Your task to perform on an android device: Go to sound settings Image 0: 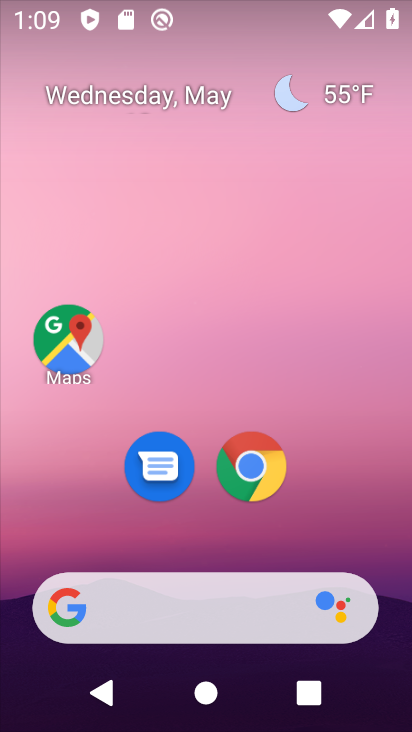
Step 0: drag from (193, 557) to (230, 55)
Your task to perform on an android device: Go to sound settings Image 1: 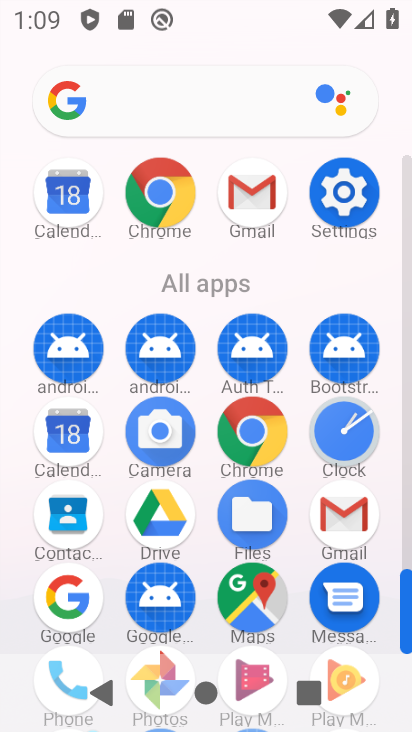
Step 1: click (350, 195)
Your task to perform on an android device: Go to sound settings Image 2: 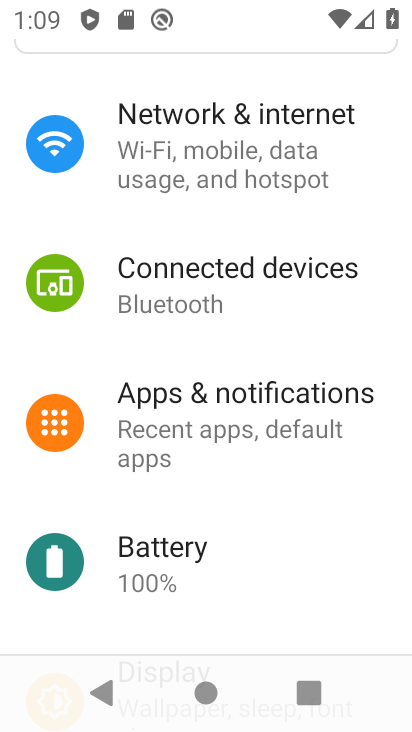
Step 2: drag from (247, 223) to (219, 523)
Your task to perform on an android device: Go to sound settings Image 3: 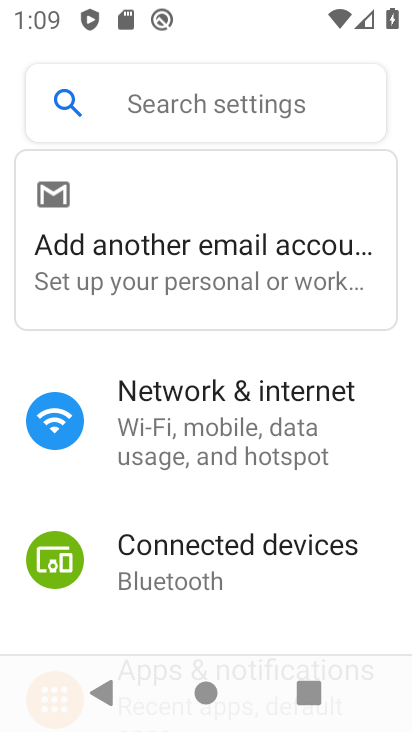
Step 3: drag from (215, 543) to (210, 23)
Your task to perform on an android device: Go to sound settings Image 4: 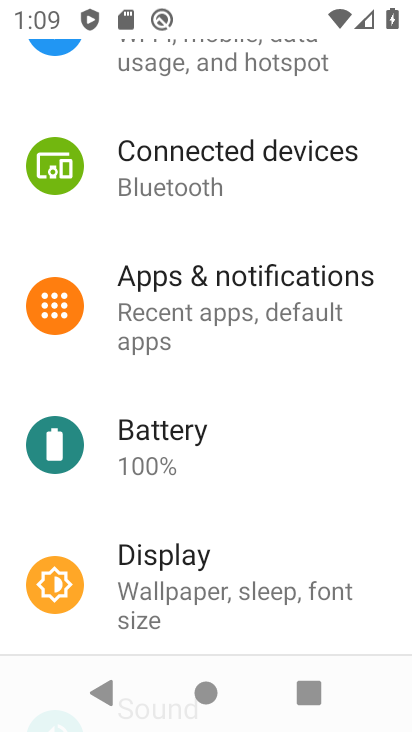
Step 4: drag from (235, 464) to (265, 196)
Your task to perform on an android device: Go to sound settings Image 5: 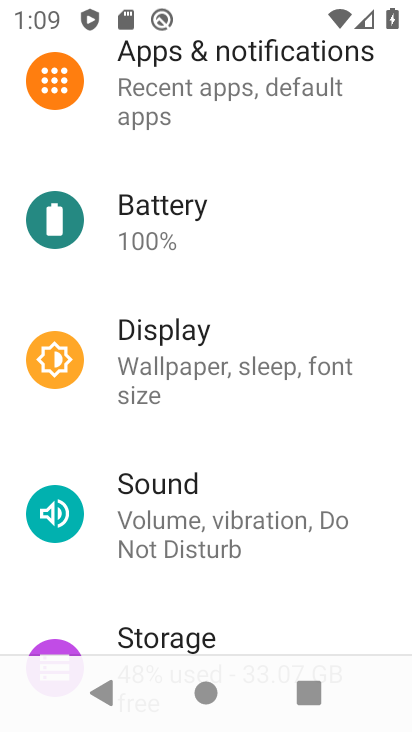
Step 5: click (229, 502)
Your task to perform on an android device: Go to sound settings Image 6: 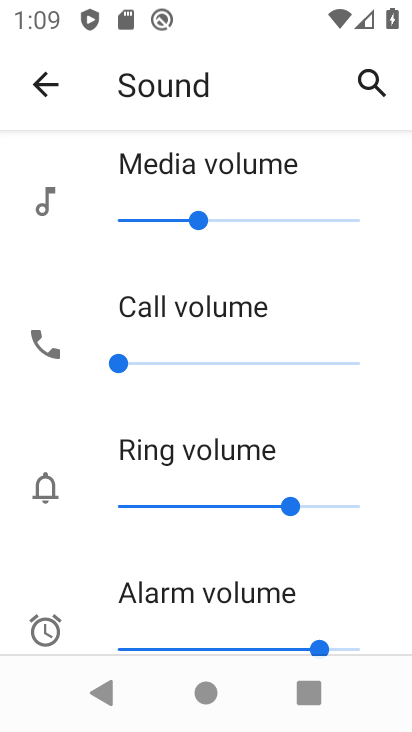
Step 6: task complete